Your task to perform on an android device: Add jbl charge 4 to the cart on target.com, then select checkout. Image 0: 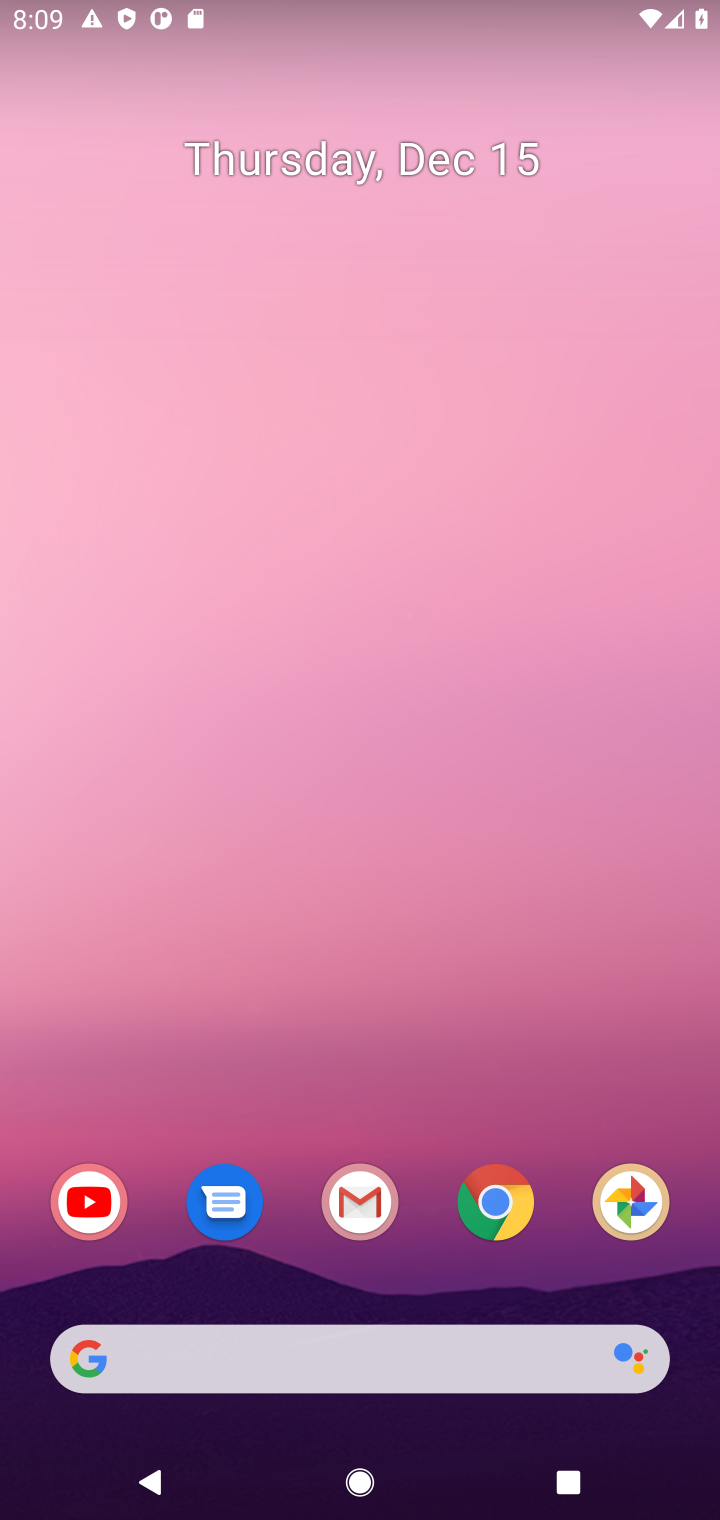
Step 0: click (498, 1208)
Your task to perform on an android device: Add jbl charge 4 to the cart on target.com, then select checkout. Image 1: 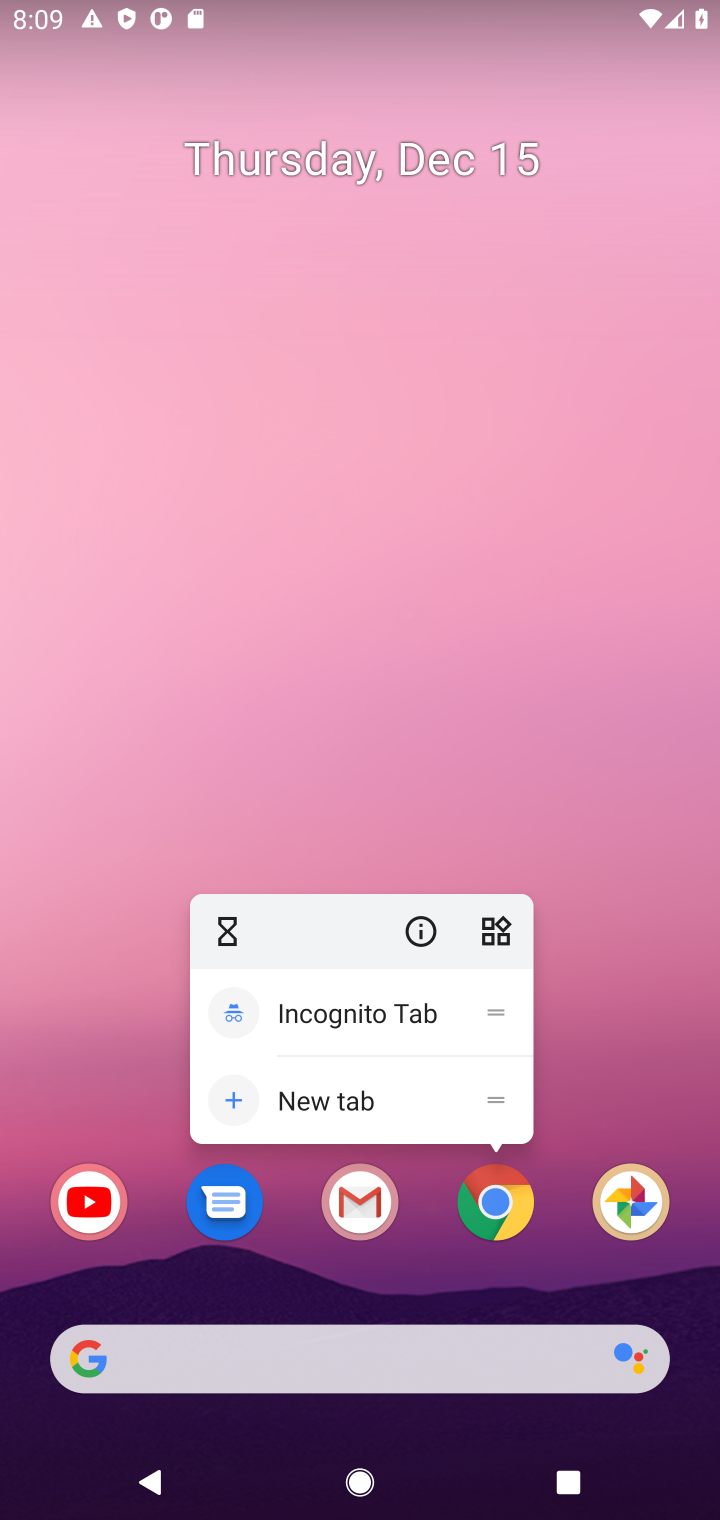
Step 1: click (504, 1208)
Your task to perform on an android device: Add jbl charge 4 to the cart on target.com, then select checkout. Image 2: 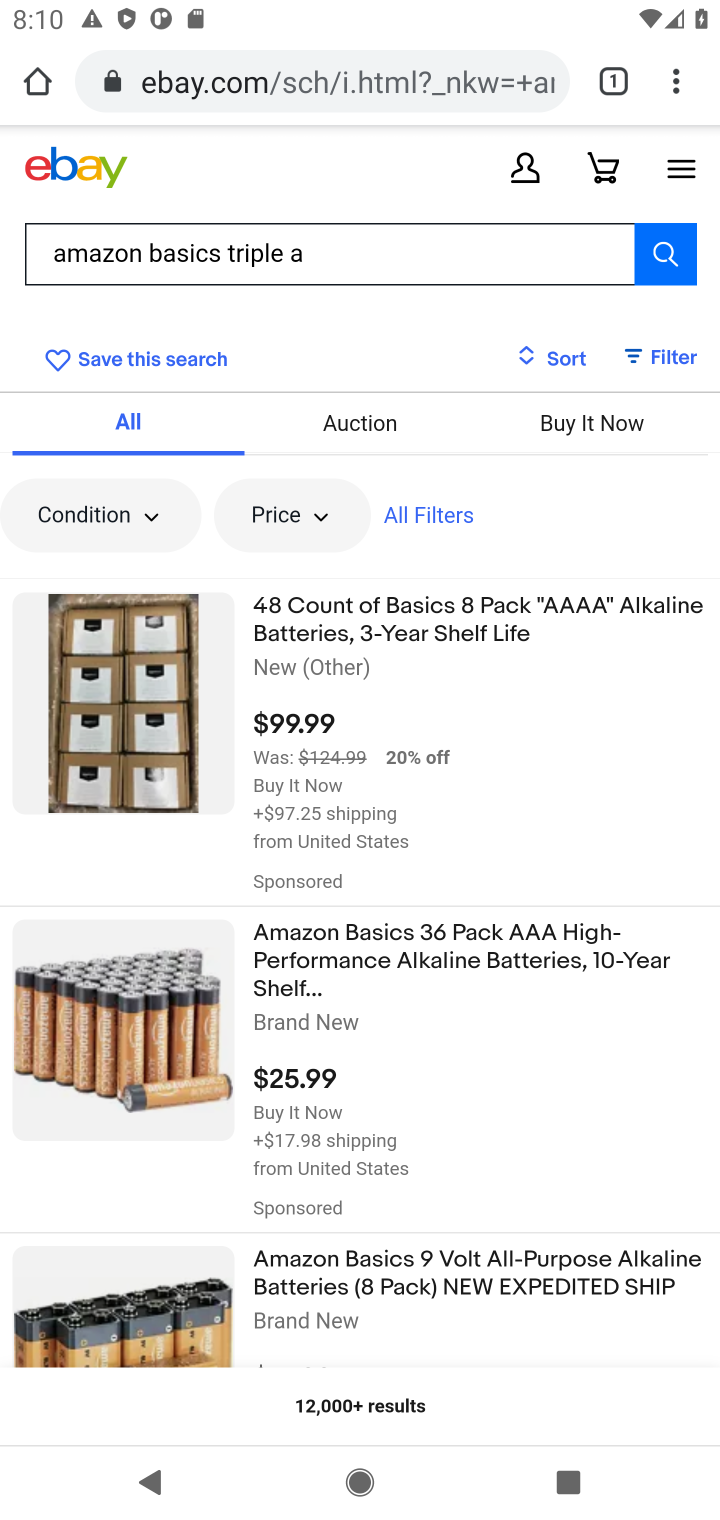
Step 2: click (262, 70)
Your task to perform on an android device: Add jbl charge 4 to the cart on target.com, then select checkout. Image 3: 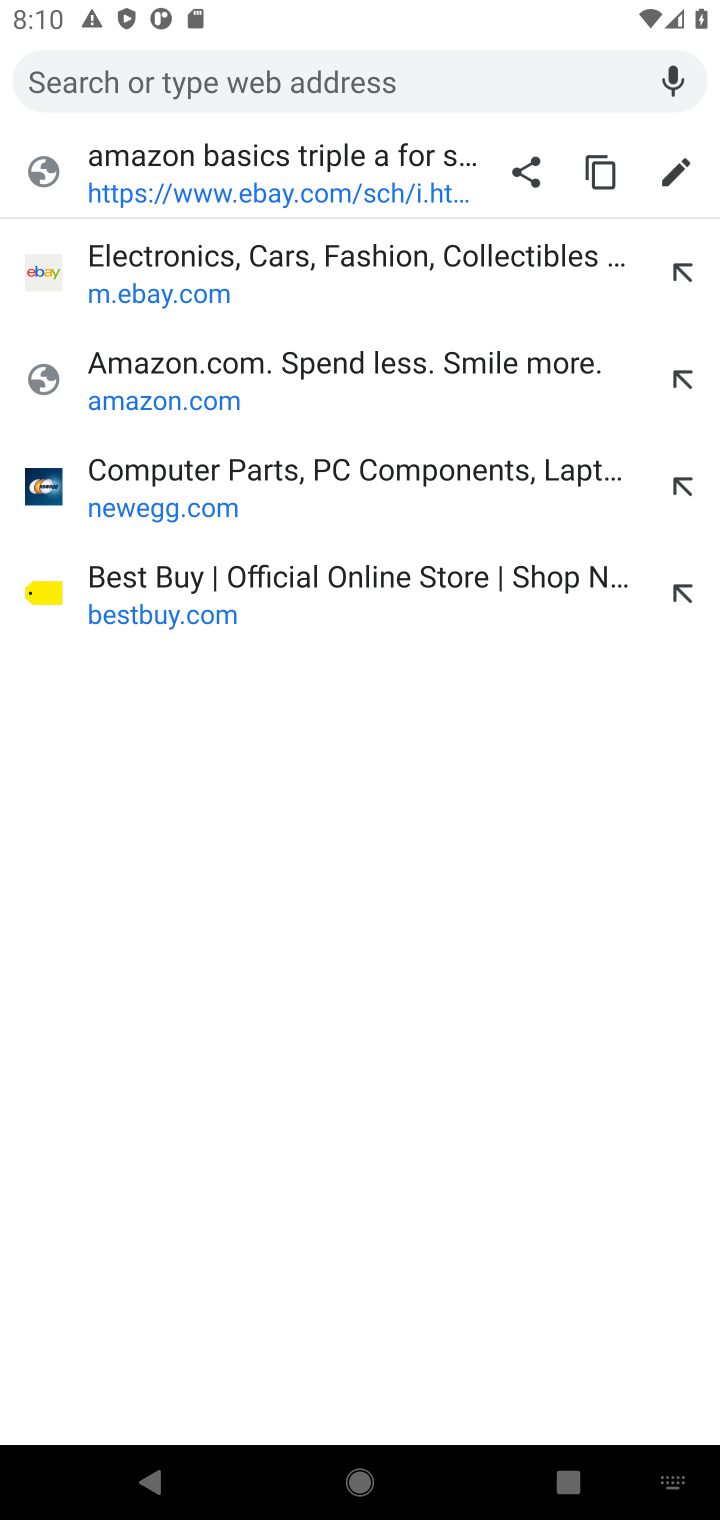
Step 3: type "target.com"
Your task to perform on an android device: Add jbl charge 4 to the cart on target.com, then select checkout. Image 4: 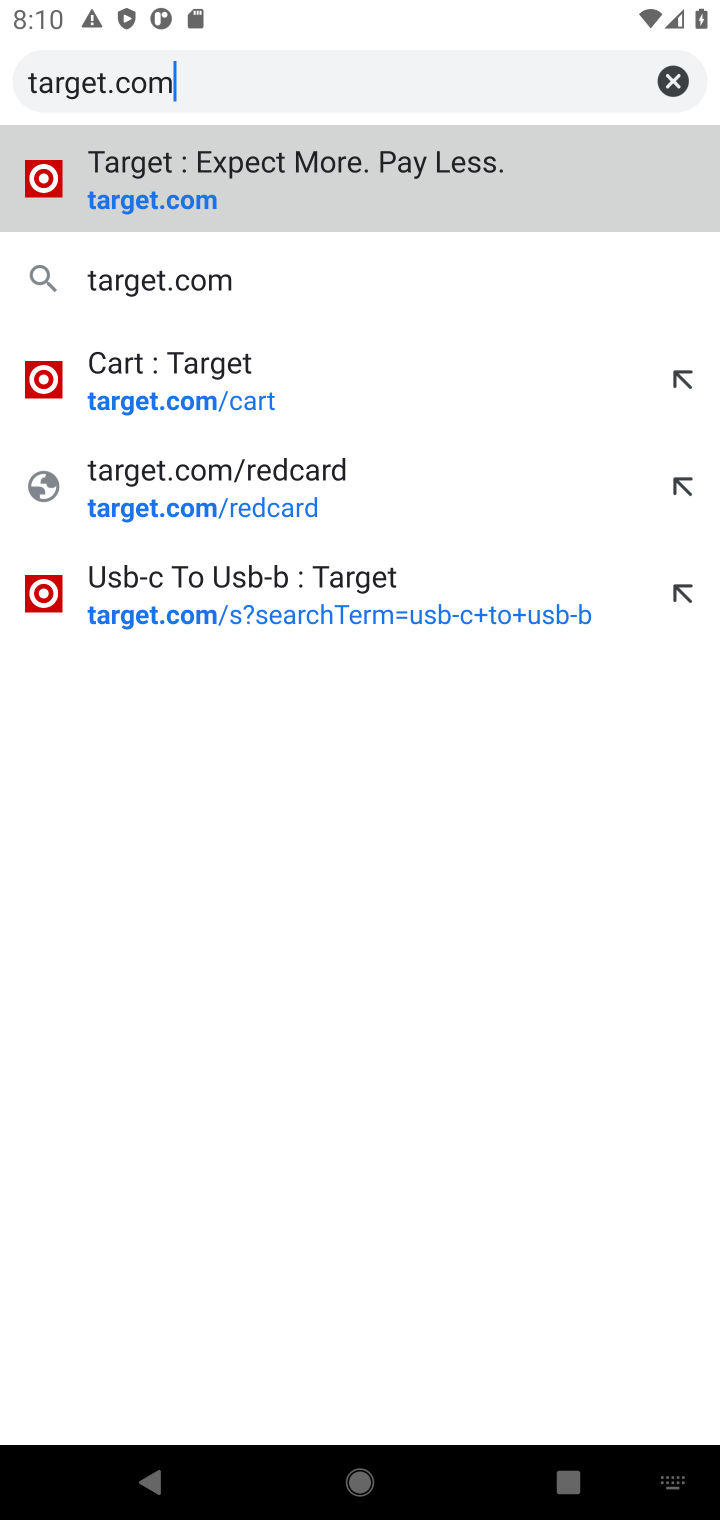
Step 4: click (179, 210)
Your task to perform on an android device: Add jbl charge 4 to the cart on target.com, then select checkout. Image 5: 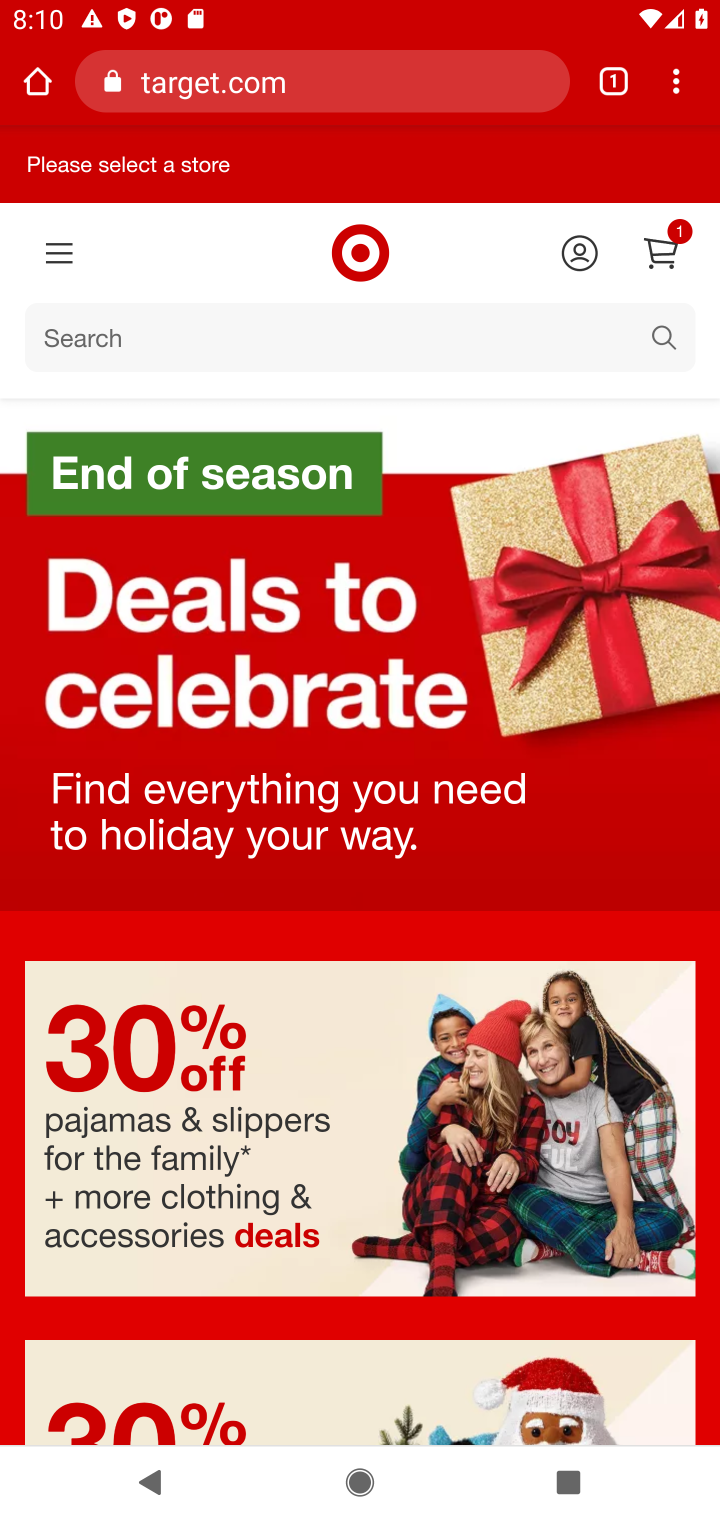
Step 5: click (65, 331)
Your task to perform on an android device: Add jbl charge 4 to the cart on target.com, then select checkout. Image 6: 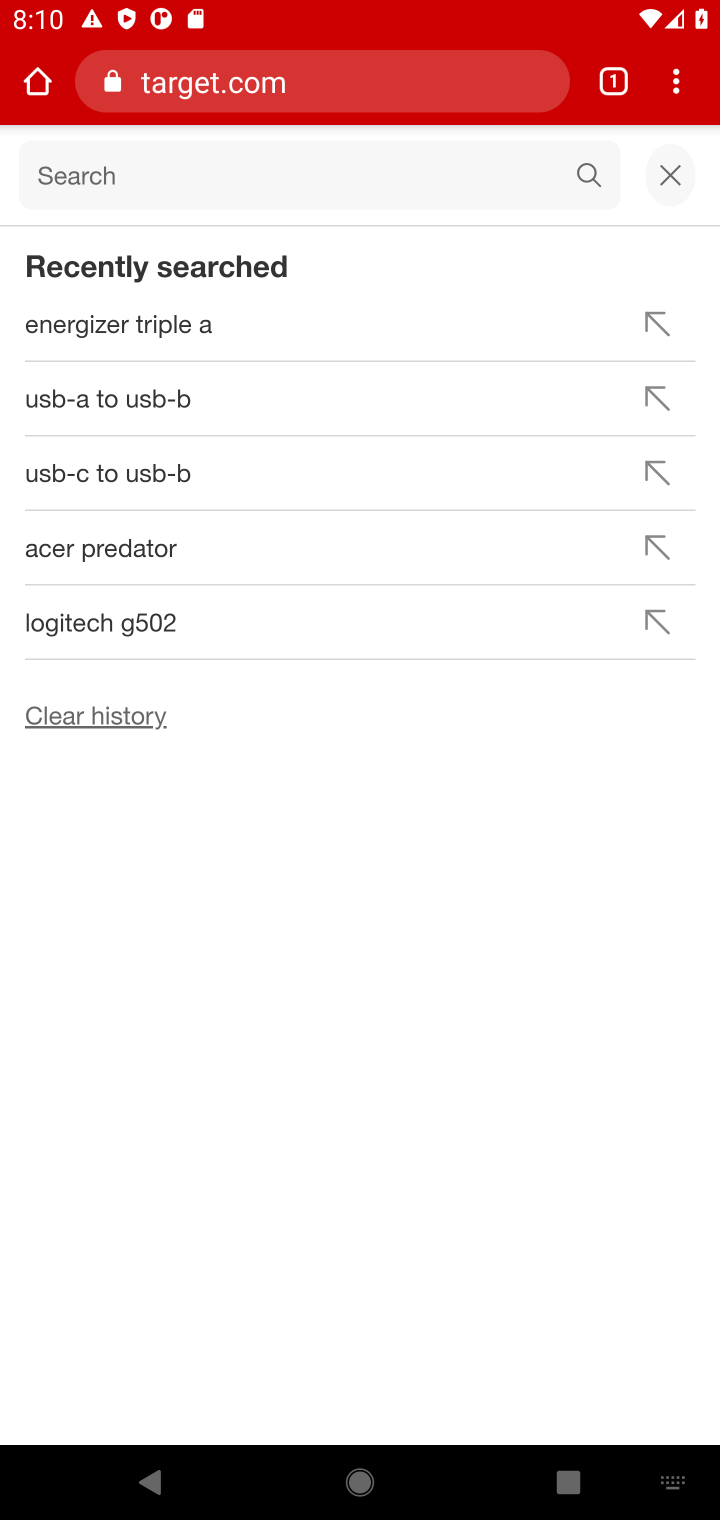
Step 6: type "jbl charge 4"
Your task to perform on an android device: Add jbl charge 4 to the cart on target.com, then select checkout. Image 7: 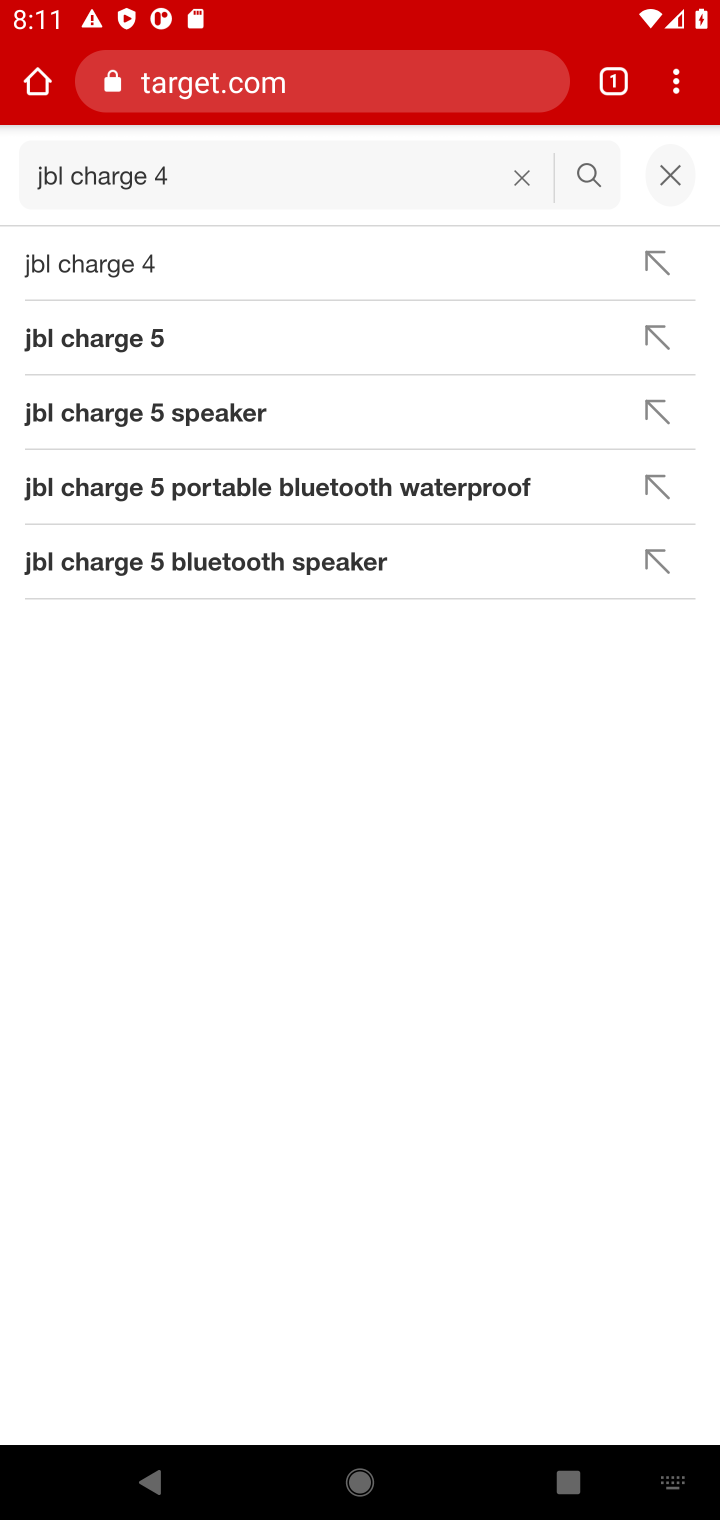
Step 7: click (57, 259)
Your task to perform on an android device: Add jbl charge 4 to the cart on target.com, then select checkout. Image 8: 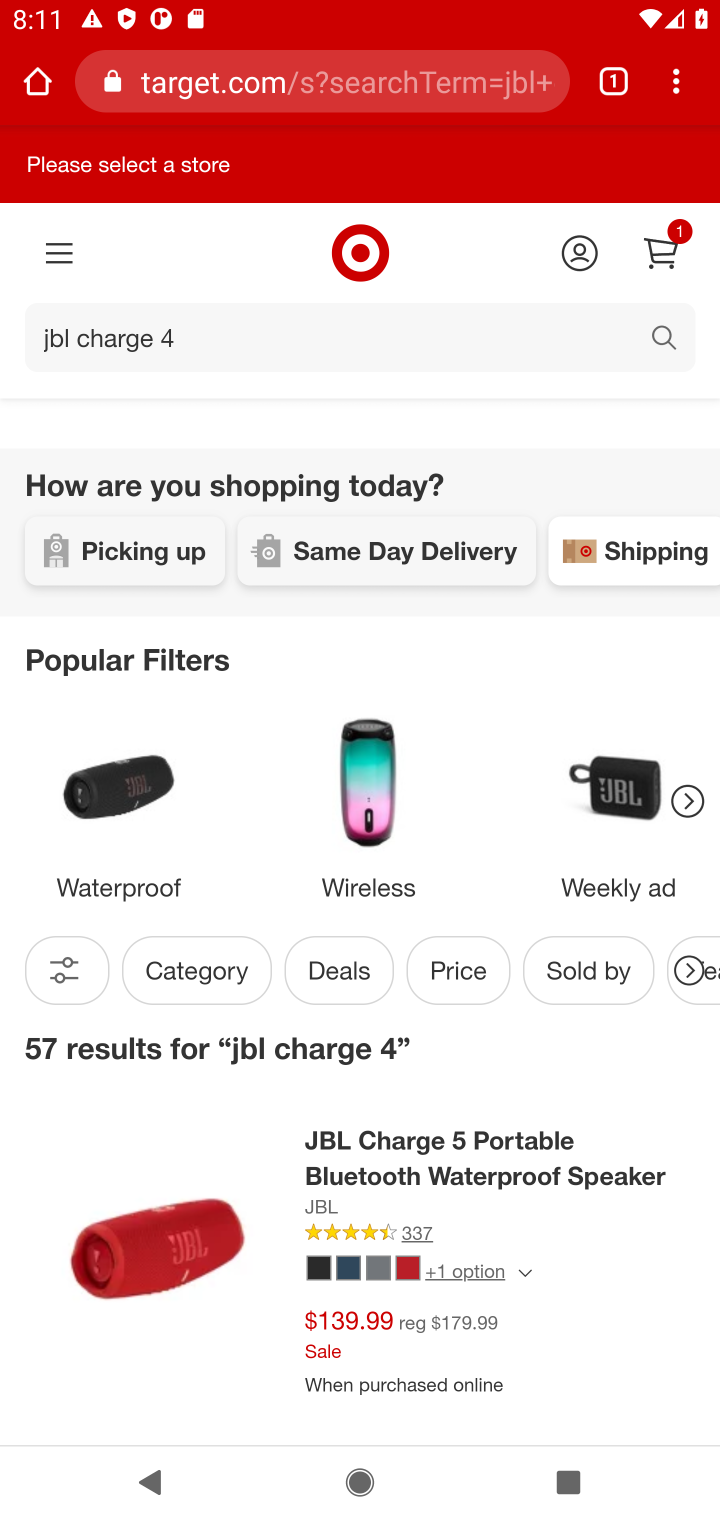
Step 8: drag from (170, 1039) to (222, 528)
Your task to perform on an android device: Add jbl charge 4 to the cart on target.com, then select checkout. Image 9: 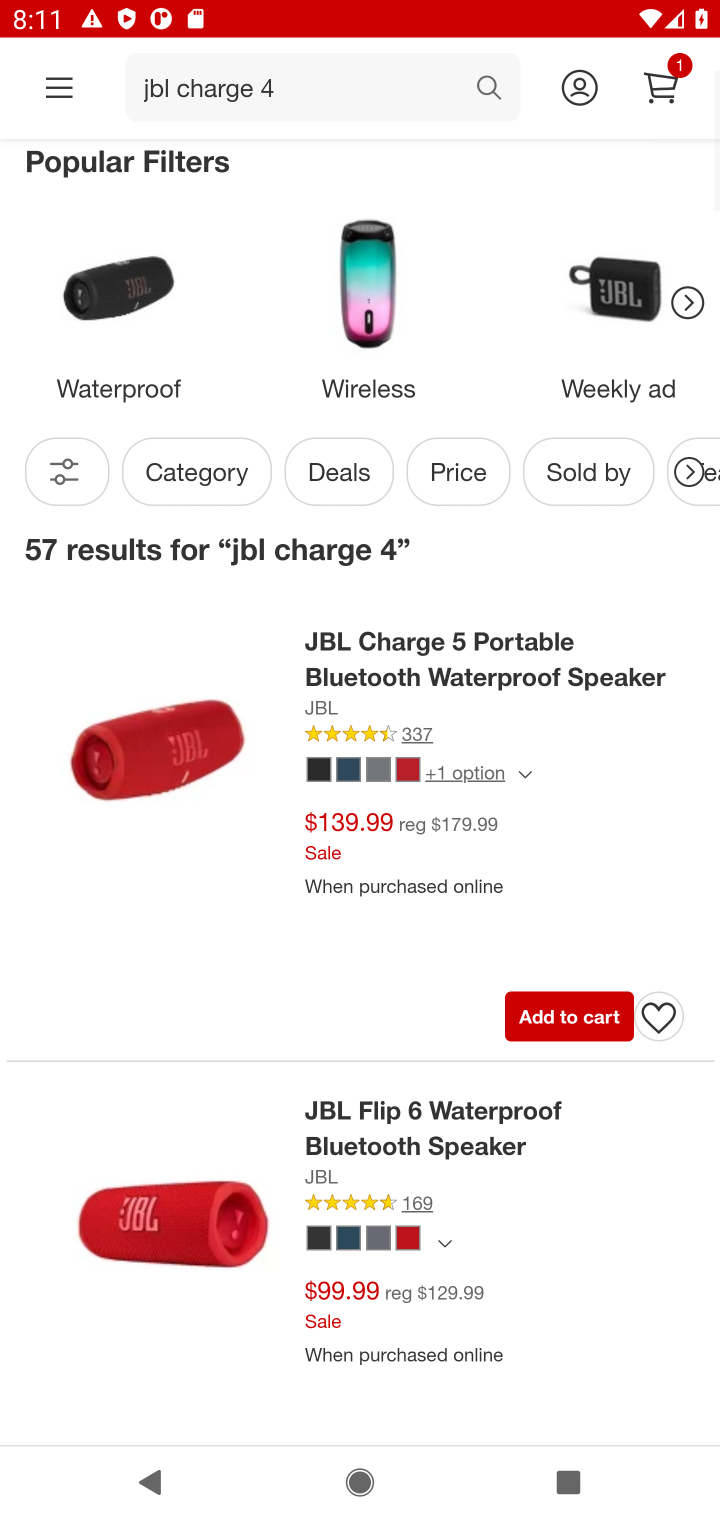
Step 9: drag from (216, 1107) to (235, 531)
Your task to perform on an android device: Add jbl charge 4 to the cart on target.com, then select checkout. Image 10: 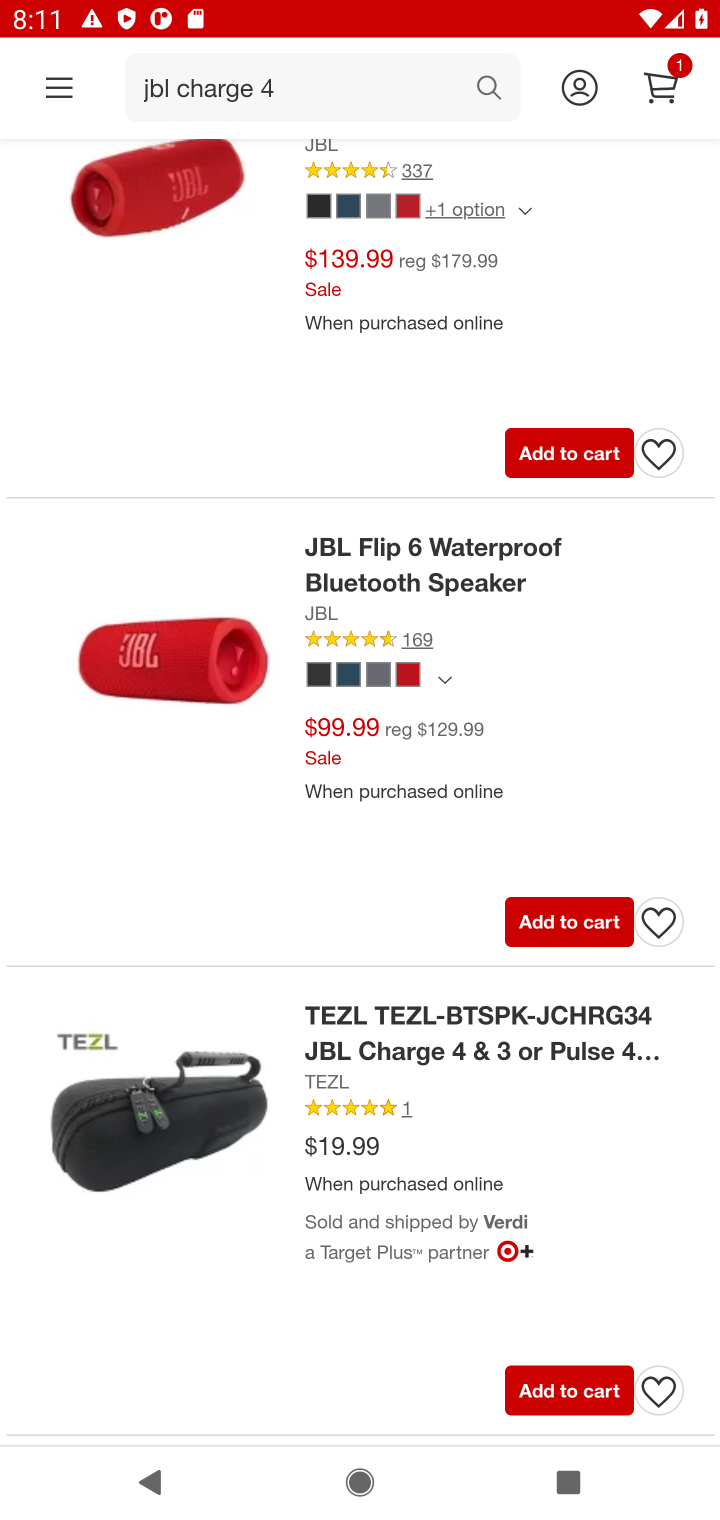
Step 10: drag from (249, 1197) to (308, 759)
Your task to perform on an android device: Add jbl charge 4 to the cart on target.com, then select checkout. Image 11: 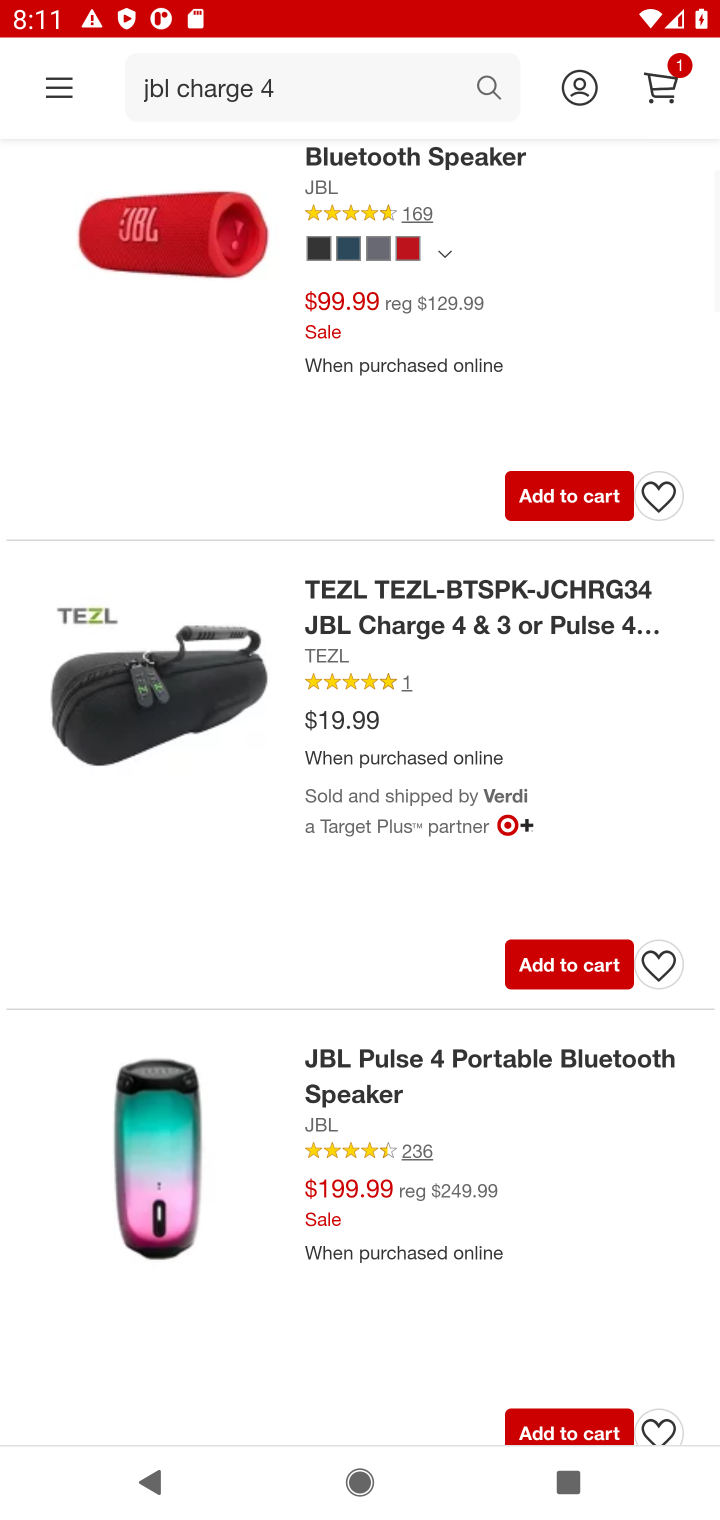
Step 11: click (571, 958)
Your task to perform on an android device: Add jbl charge 4 to the cart on target.com, then select checkout. Image 12: 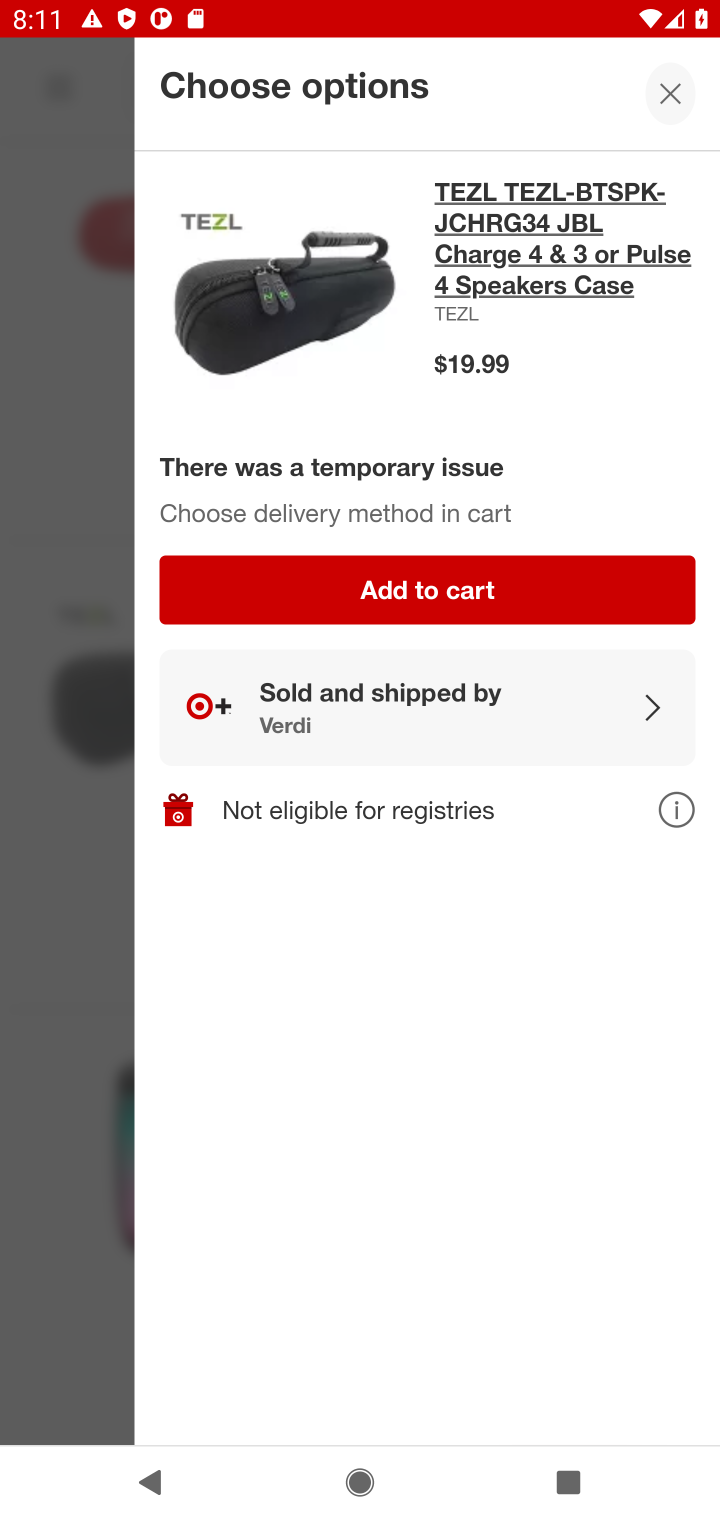
Step 12: click (405, 602)
Your task to perform on an android device: Add jbl charge 4 to the cart on target.com, then select checkout. Image 13: 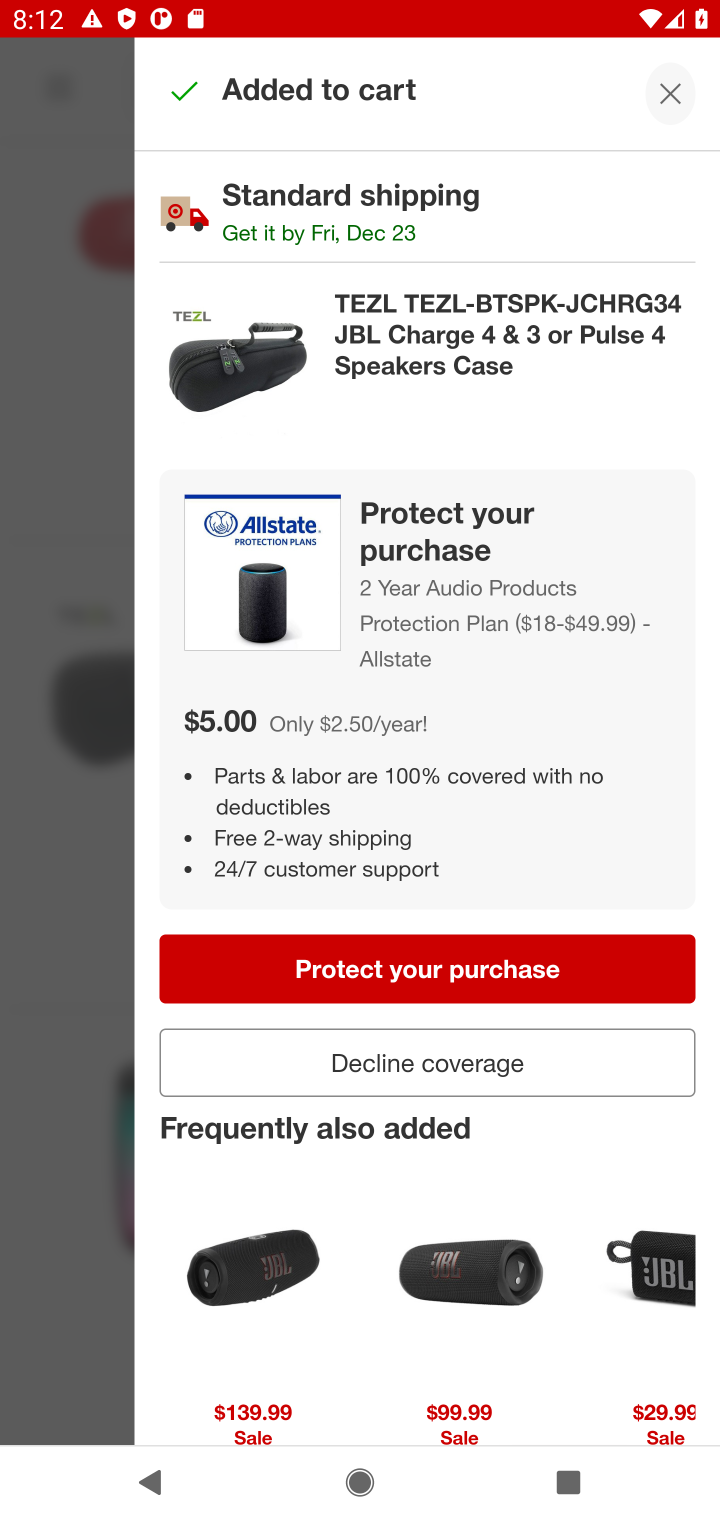
Step 13: click (672, 93)
Your task to perform on an android device: Add jbl charge 4 to the cart on target.com, then select checkout. Image 14: 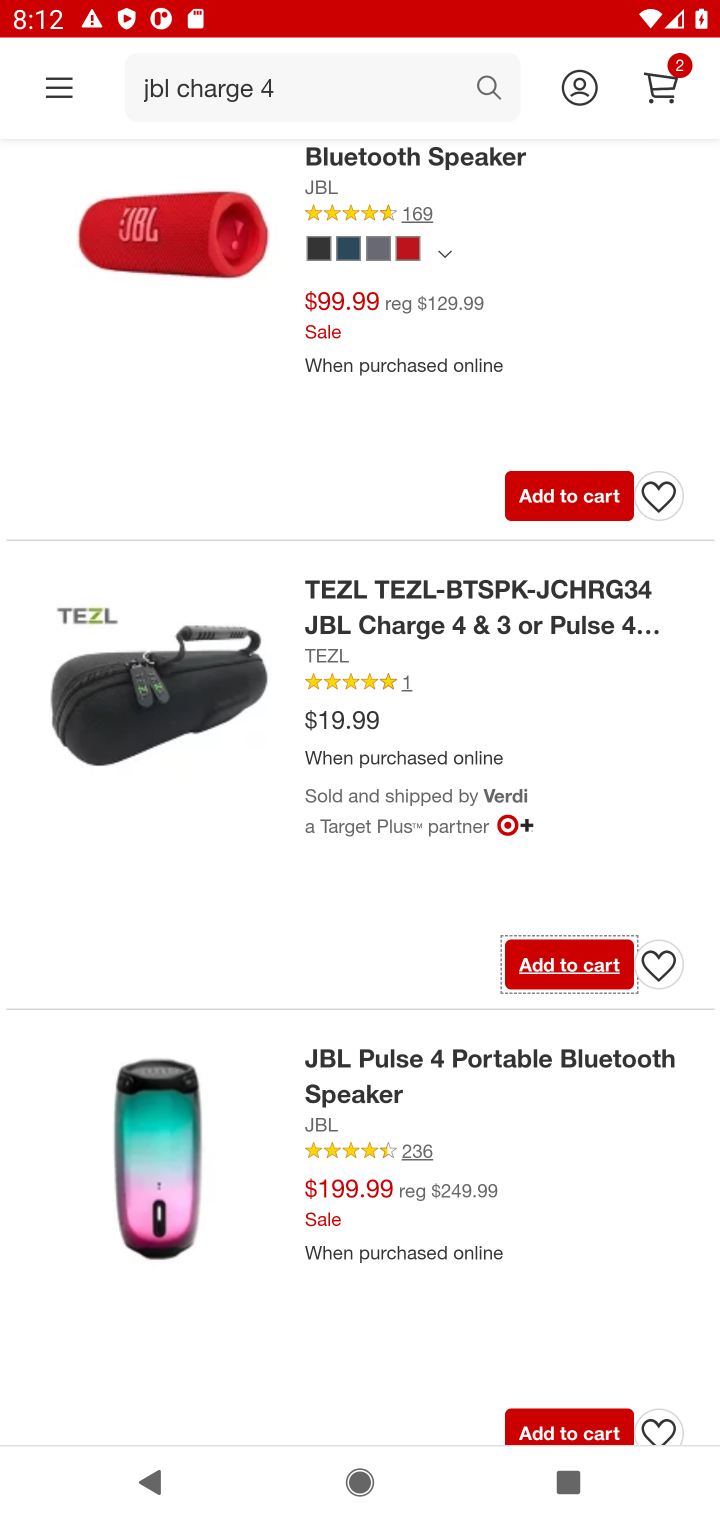
Step 14: click (658, 75)
Your task to perform on an android device: Add jbl charge 4 to the cart on target.com, then select checkout. Image 15: 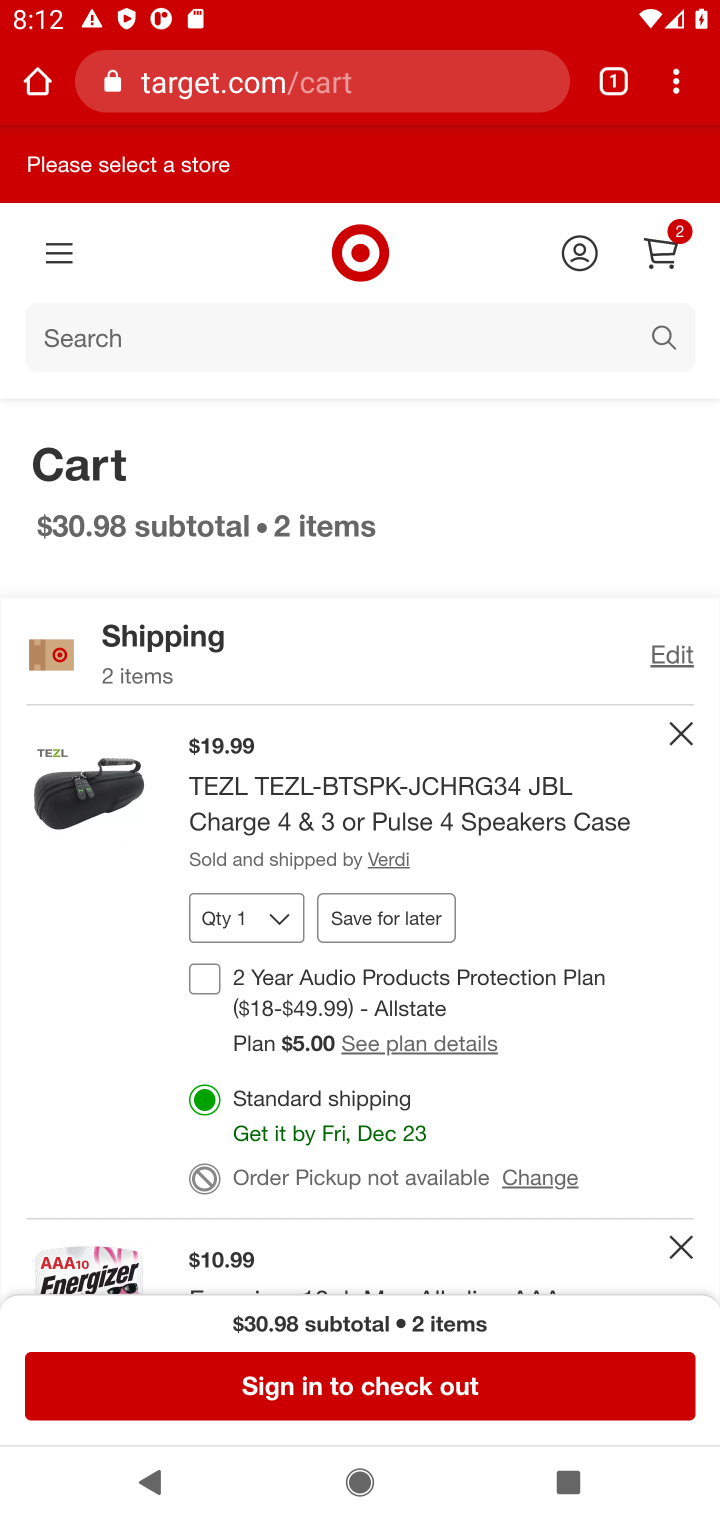
Step 15: click (349, 1399)
Your task to perform on an android device: Add jbl charge 4 to the cart on target.com, then select checkout. Image 16: 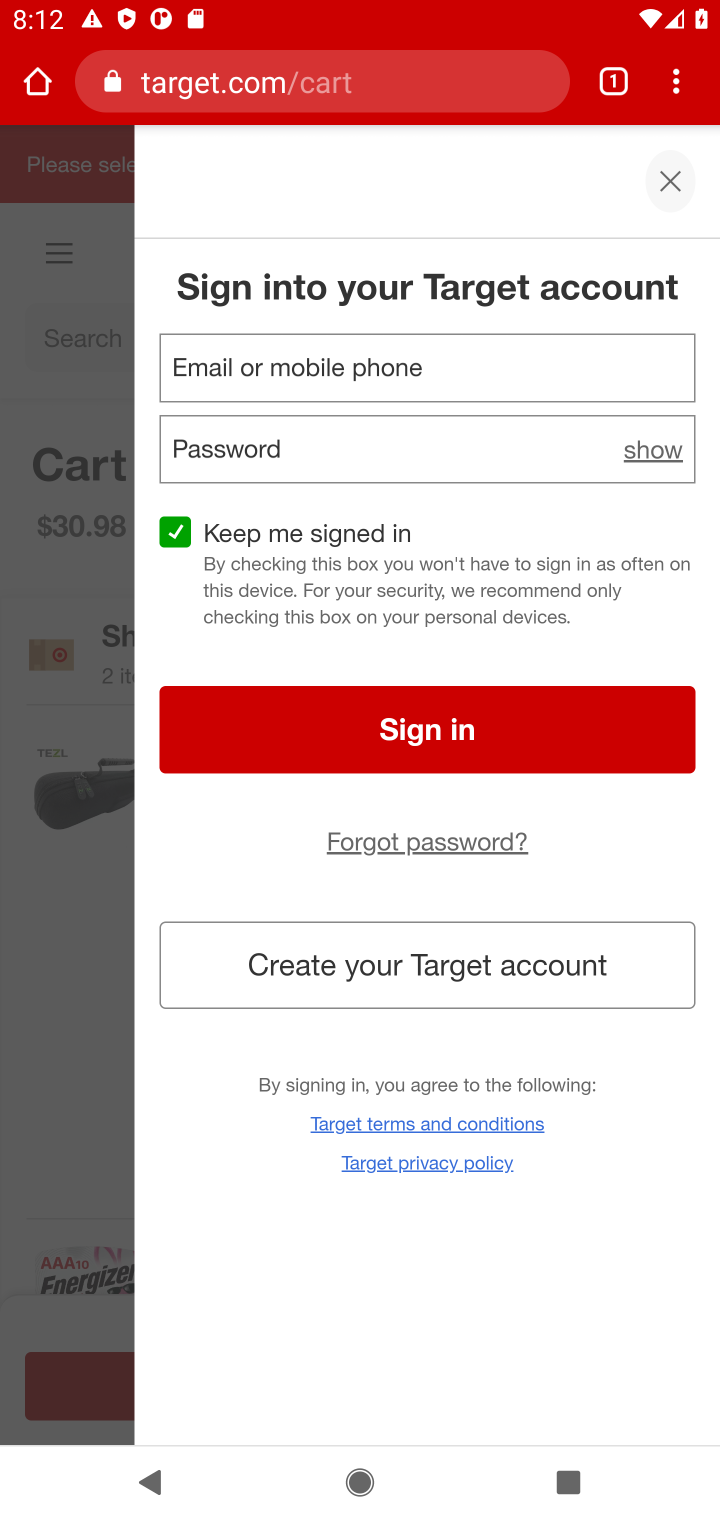
Step 16: task complete